Your task to perform on an android device: toggle data saver in the chrome app Image 0: 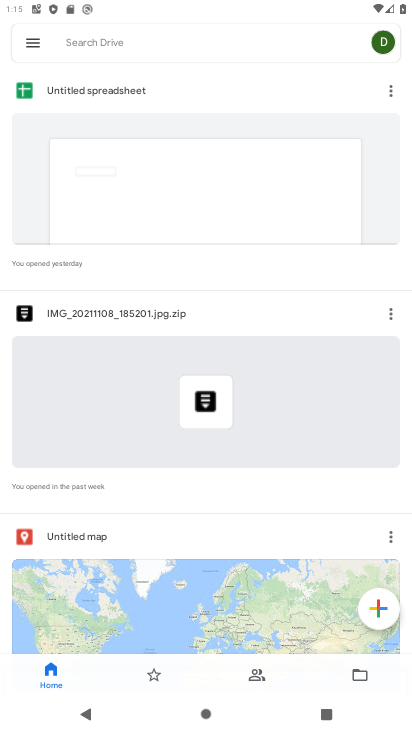
Step 0: press home button
Your task to perform on an android device: toggle data saver in the chrome app Image 1: 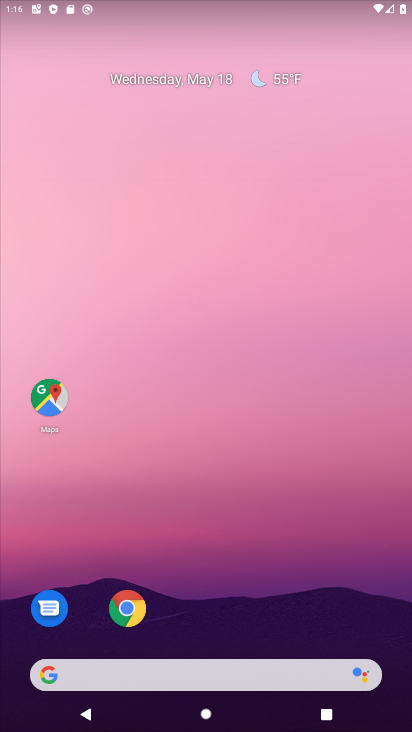
Step 1: click (121, 602)
Your task to perform on an android device: toggle data saver in the chrome app Image 2: 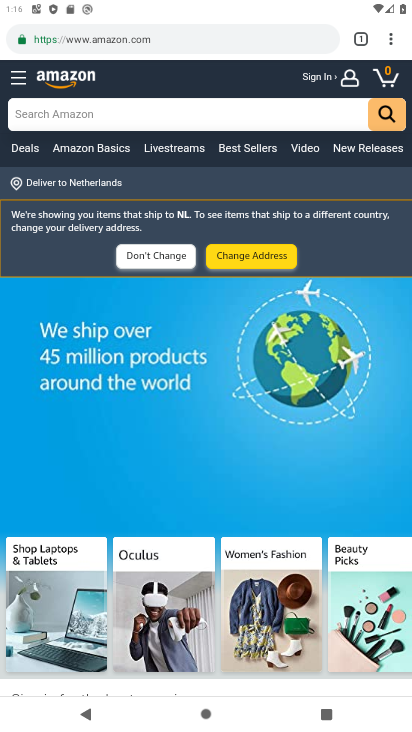
Step 2: drag from (397, 36) to (288, 484)
Your task to perform on an android device: toggle data saver in the chrome app Image 3: 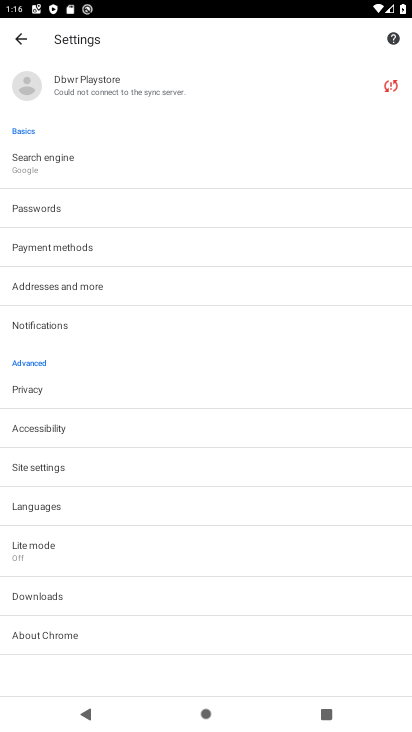
Step 3: drag from (150, 606) to (221, 417)
Your task to perform on an android device: toggle data saver in the chrome app Image 4: 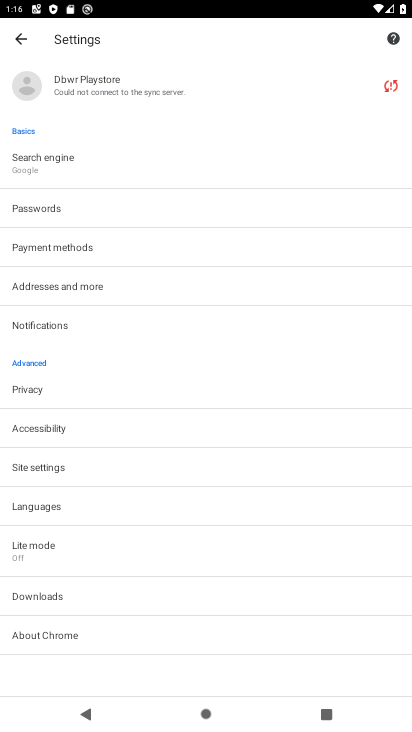
Step 4: click (55, 555)
Your task to perform on an android device: toggle data saver in the chrome app Image 5: 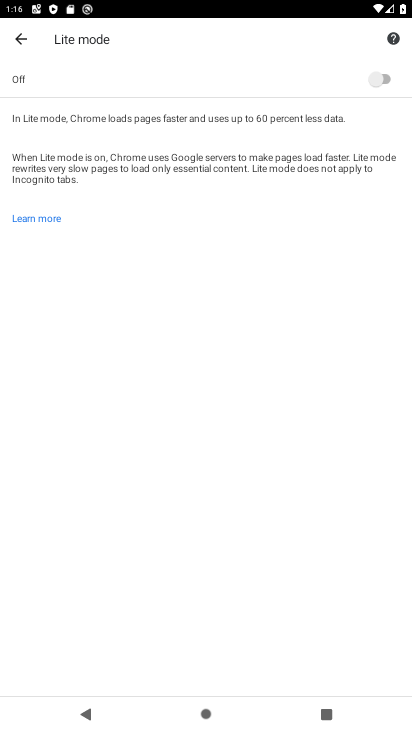
Step 5: click (368, 86)
Your task to perform on an android device: toggle data saver in the chrome app Image 6: 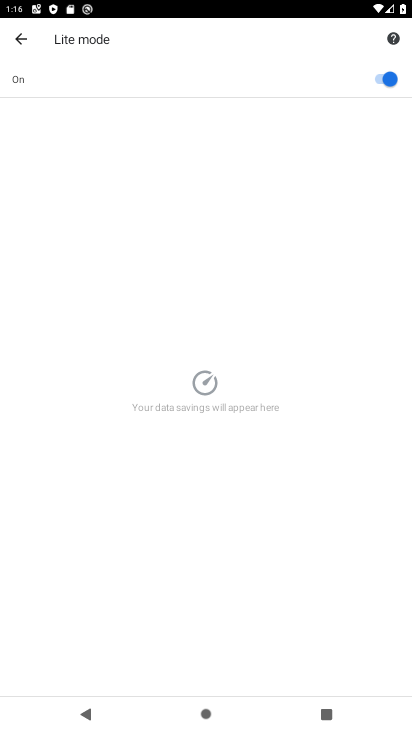
Step 6: task complete